Your task to perform on an android device: Open calendar and show me the first week of next month Image 0: 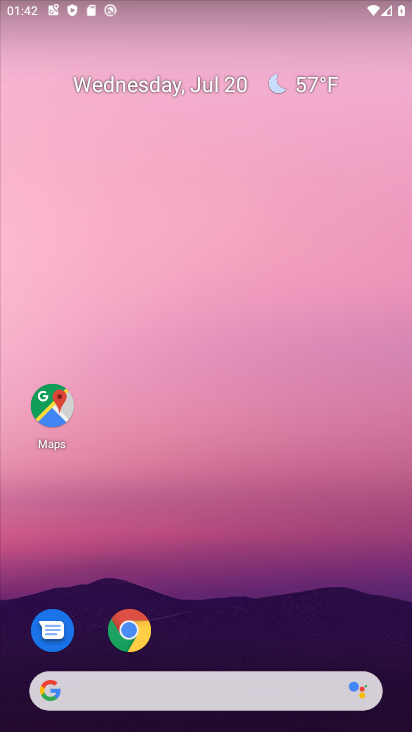
Step 0: drag from (301, 611) to (254, 111)
Your task to perform on an android device: Open calendar and show me the first week of next month Image 1: 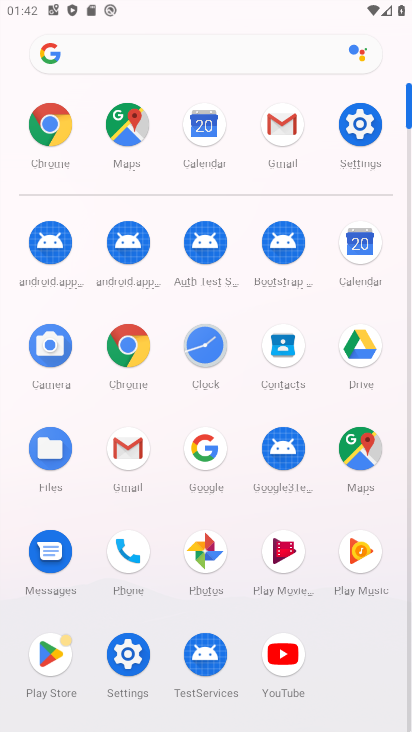
Step 1: click (371, 247)
Your task to perform on an android device: Open calendar and show me the first week of next month Image 2: 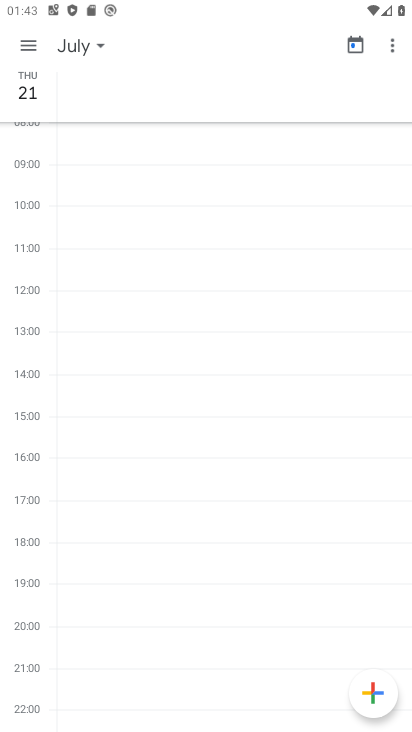
Step 2: click (94, 43)
Your task to perform on an android device: Open calendar and show me the first week of next month Image 3: 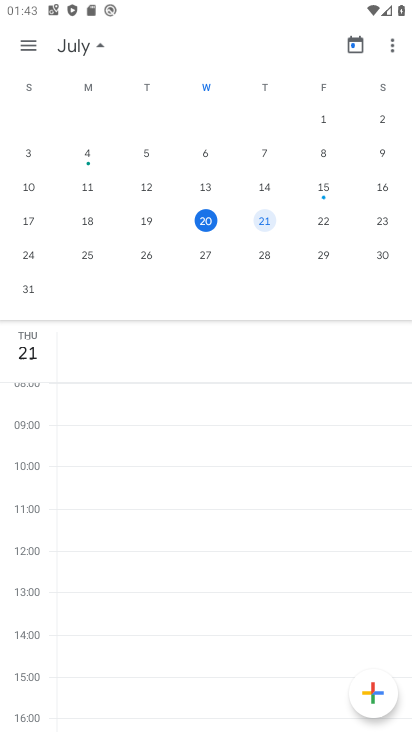
Step 3: drag from (390, 220) to (10, 172)
Your task to perform on an android device: Open calendar and show me the first week of next month Image 4: 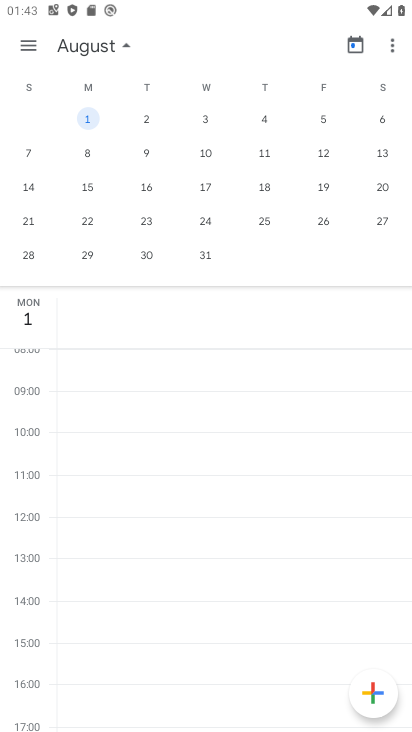
Step 4: click (203, 117)
Your task to perform on an android device: Open calendar and show me the first week of next month Image 5: 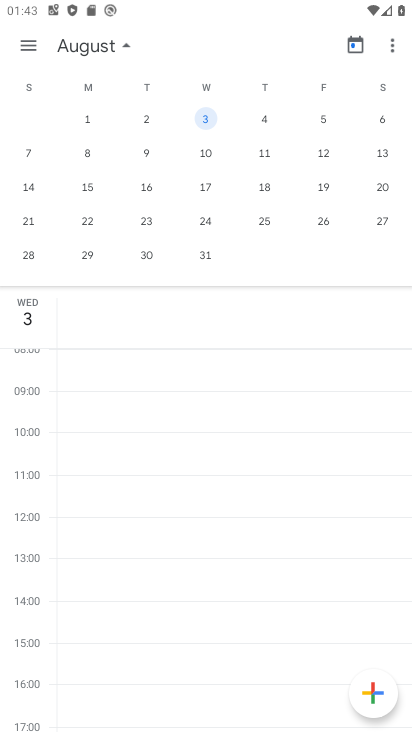
Step 5: click (37, 46)
Your task to perform on an android device: Open calendar and show me the first week of next month Image 6: 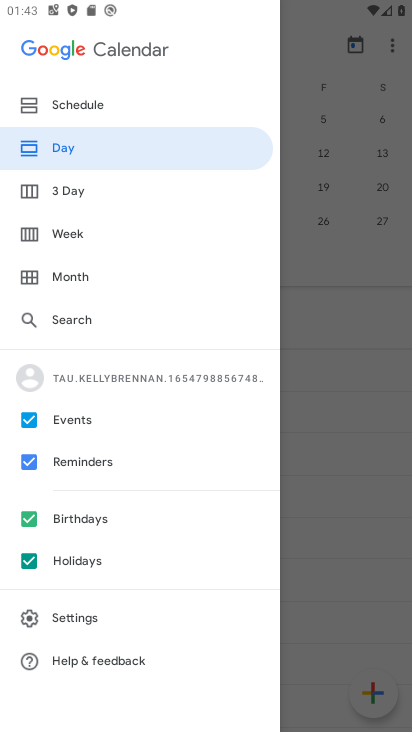
Step 6: click (114, 229)
Your task to perform on an android device: Open calendar and show me the first week of next month Image 7: 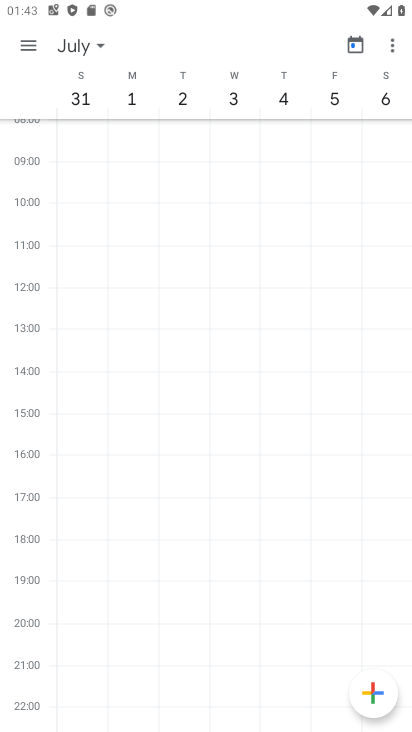
Step 7: task complete